Your task to perform on an android device: Open Android settings Image 0: 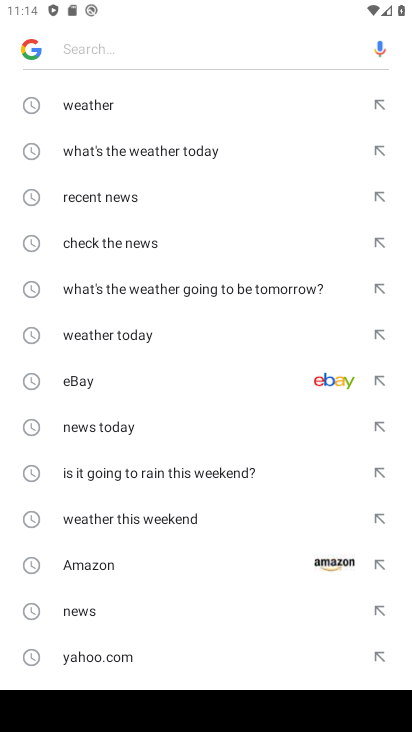
Step 0: press home button
Your task to perform on an android device: Open Android settings Image 1: 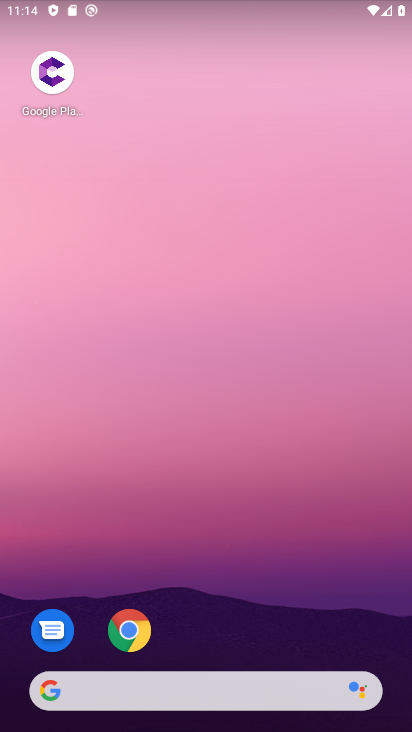
Step 1: drag from (260, 543) to (410, 60)
Your task to perform on an android device: Open Android settings Image 2: 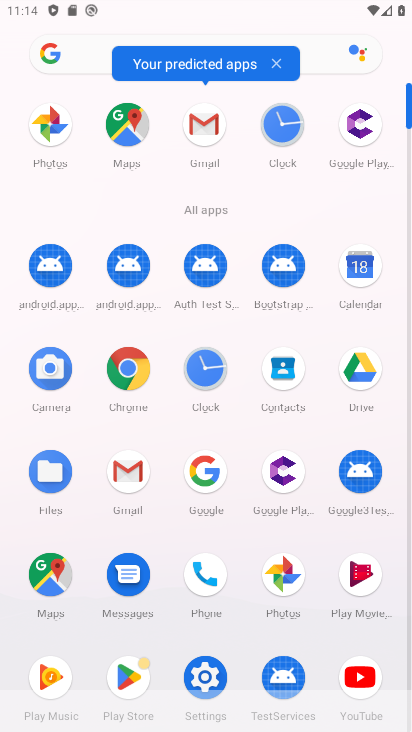
Step 2: click (200, 674)
Your task to perform on an android device: Open Android settings Image 3: 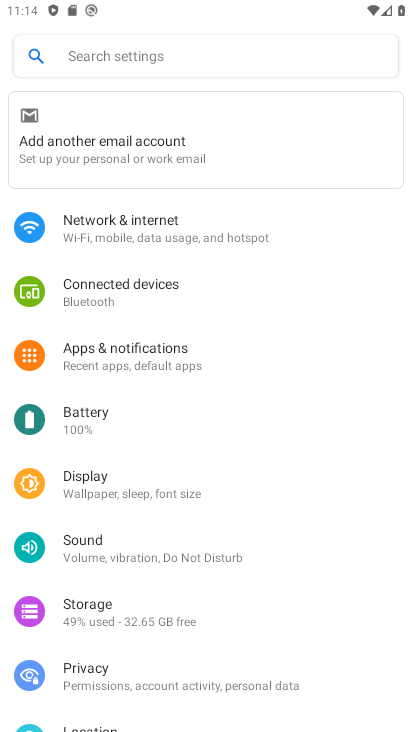
Step 3: task complete